Your task to perform on an android device: see sites visited before in the chrome app Image 0: 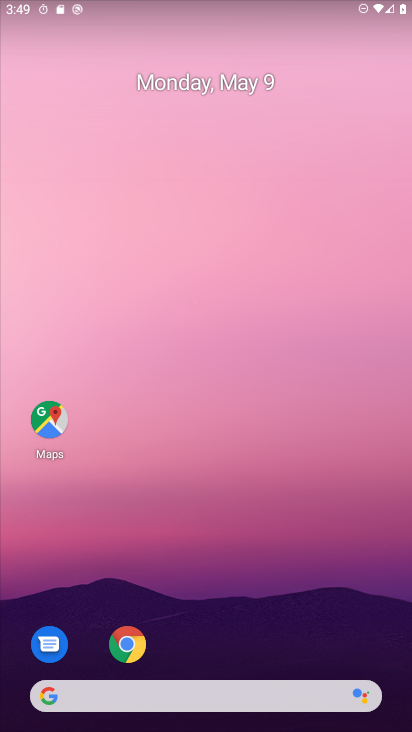
Step 0: click (225, 126)
Your task to perform on an android device: see sites visited before in the chrome app Image 1: 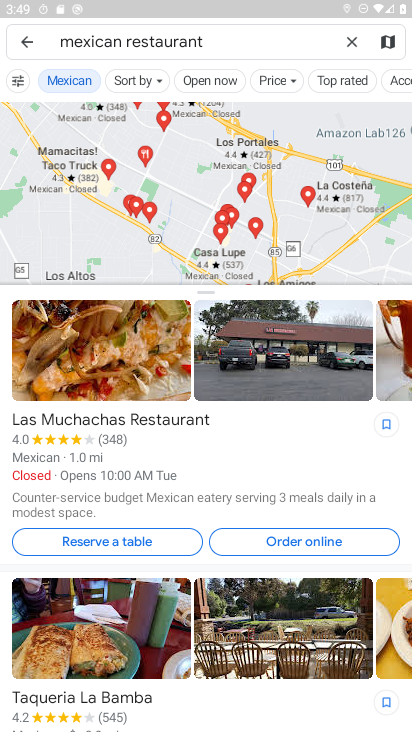
Step 1: press home button
Your task to perform on an android device: see sites visited before in the chrome app Image 2: 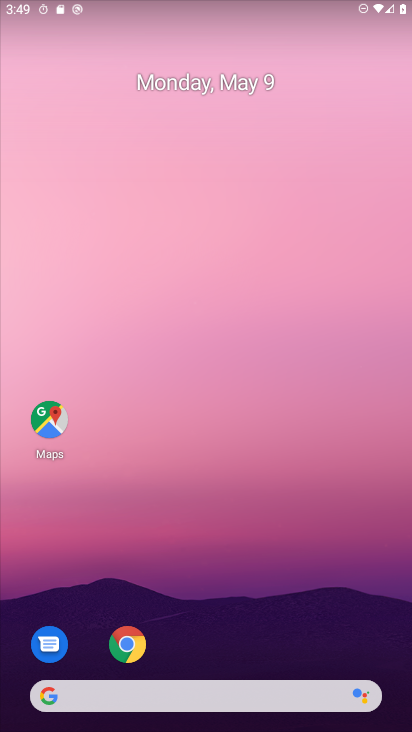
Step 2: drag from (200, 620) to (252, 94)
Your task to perform on an android device: see sites visited before in the chrome app Image 3: 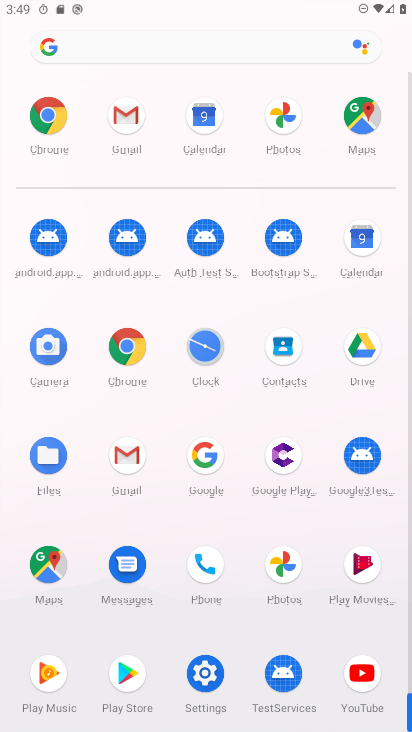
Step 3: click (72, 151)
Your task to perform on an android device: see sites visited before in the chrome app Image 4: 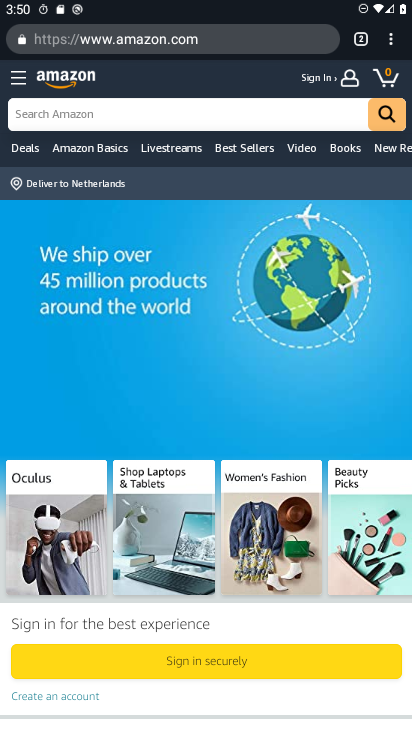
Step 4: click (395, 43)
Your task to perform on an android device: see sites visited before in the chrome app Image 5: 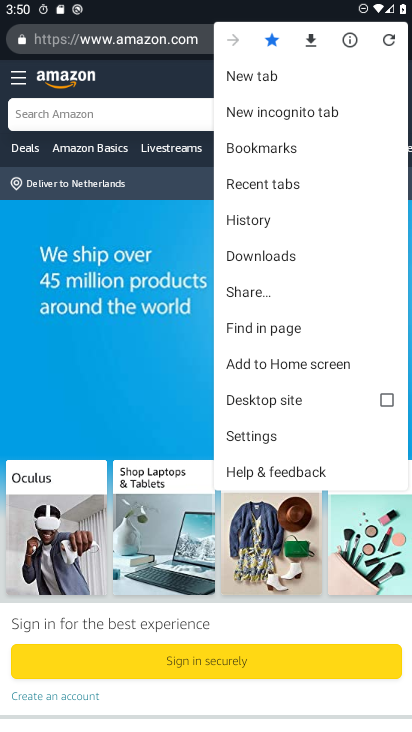
Step 5: click (257, 229)
Your task to perform on an android device: see sites visited before in the chrome app Image 6: 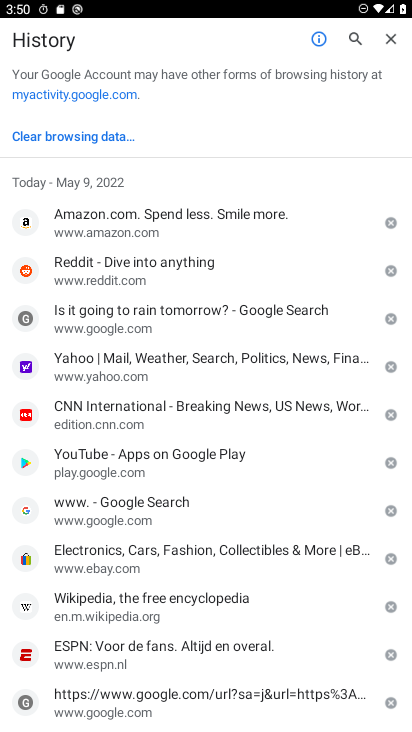
Step 6: task complete